Your task to perform on an android device: see sites visited before in the chrome app Image 0: 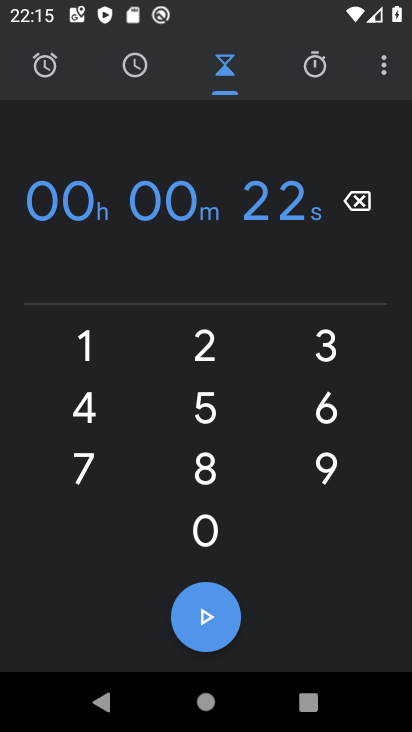
Step 0: press home button
Your task to perform on an android device: see sites visited before in the chrome app Image 1: 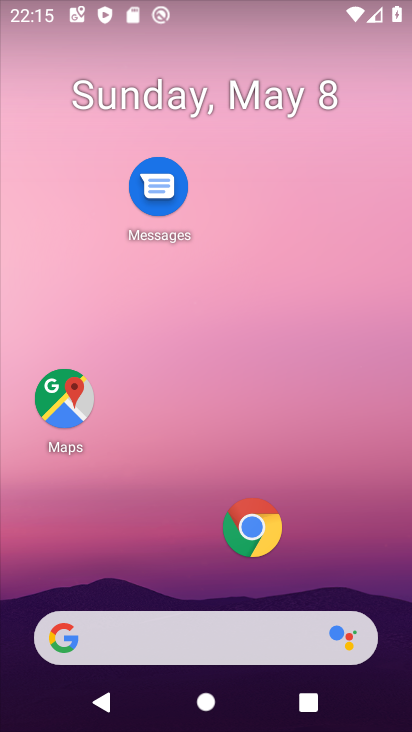
Step 1: click (256, 526)
Your task to perform on an android device: see sites visited before in the chrome app Image 2: 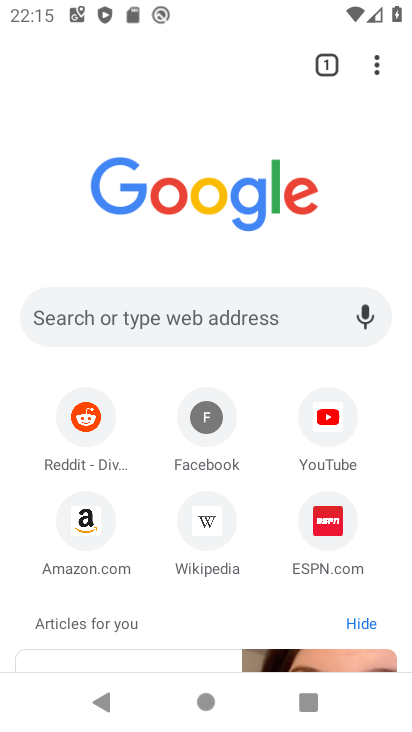
Step 2: click (373, 66)
Your task to perform on an android device: see sites visited before in the chrome app Image 3: 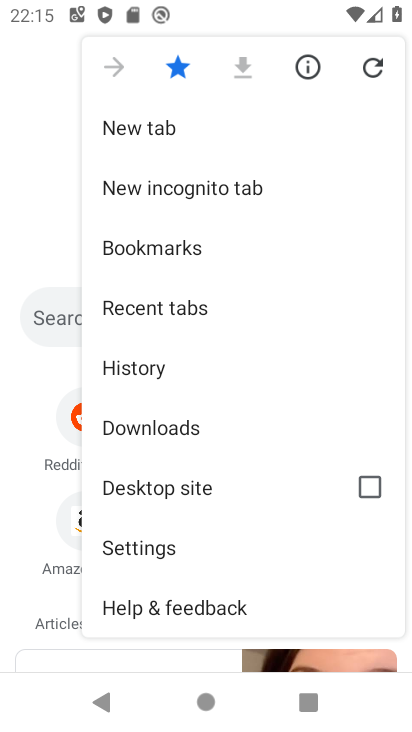
Step 3: click (163, 368)
Your task to perform on an android device: see sites visited before in the chrome app Image 4: 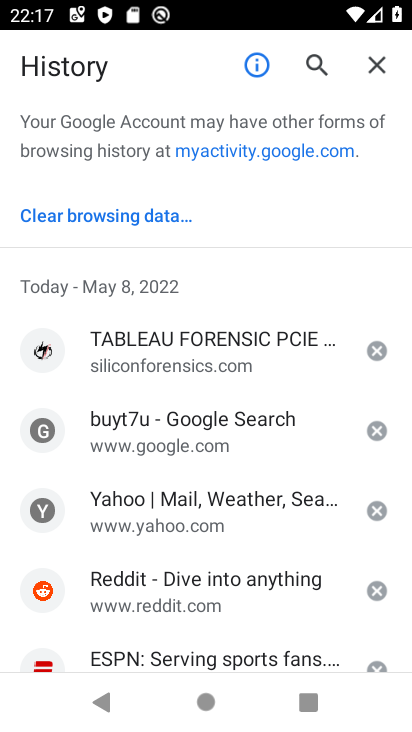
Step 4: task complete